Your task to perform on an android device: see creations saved in the google photos Image 0: 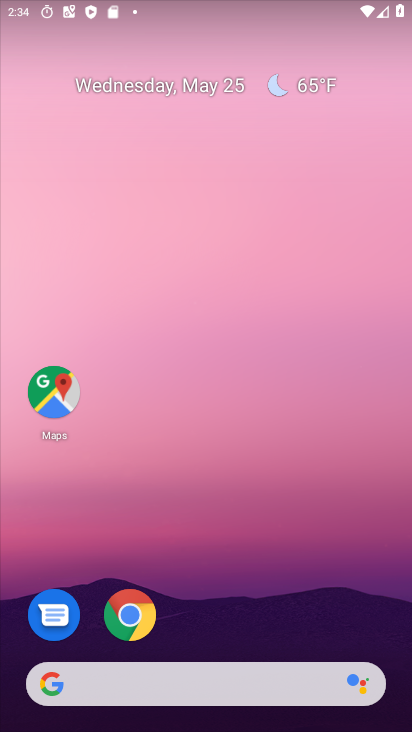
Step 0: drag from (403, 692) to (395, 148)
Your task to perform on an android device: see creations saved in the google photos Image 1: 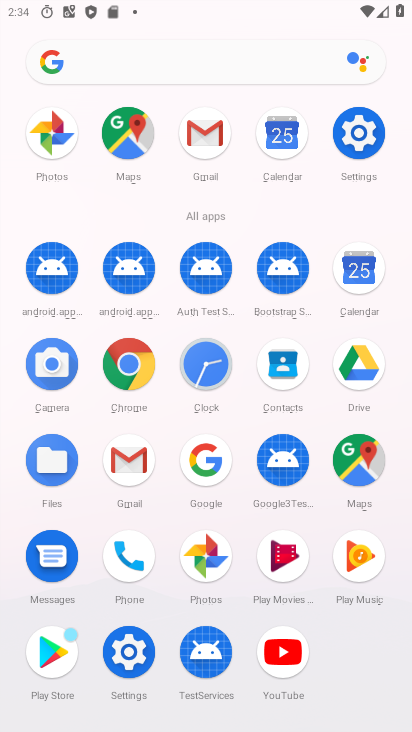
Step 1: click (40, 131)
Your task to perform on an android device: see creations saved in the google photos Image 2: 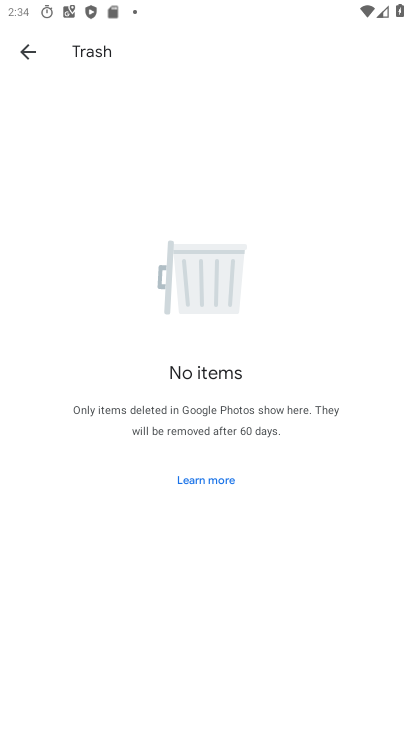
Step 2: click (21, 46)
Your task to perform on an android device: see creations saved in the google photos Image 3: 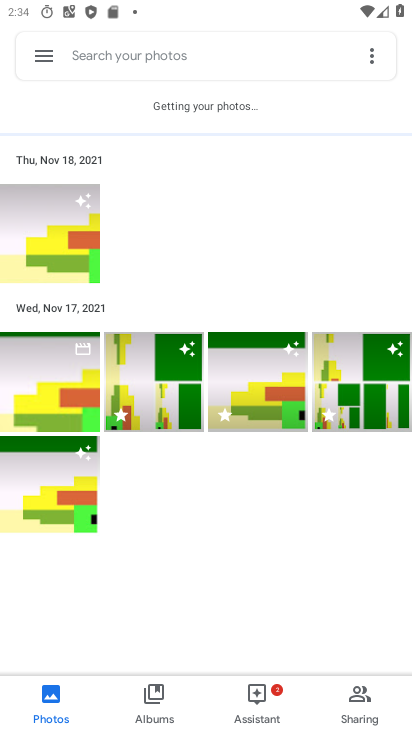
Step 3: click (59, 240)
Your task to perform on an android device: see creations saved in the google photos Image 4: 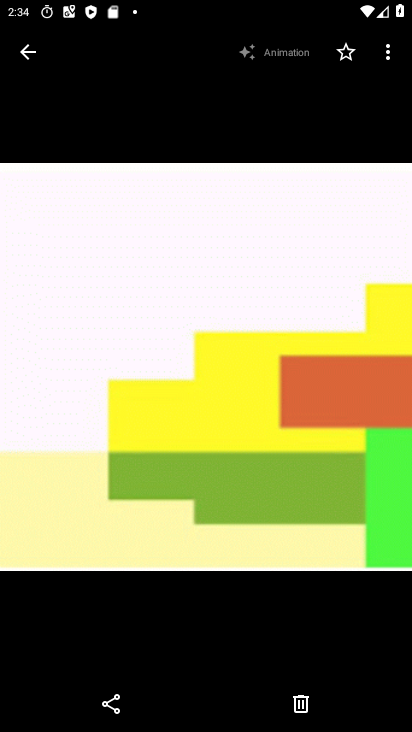
Step 4: task complete